Your task to perform on an android device: Go to Google Image 0: 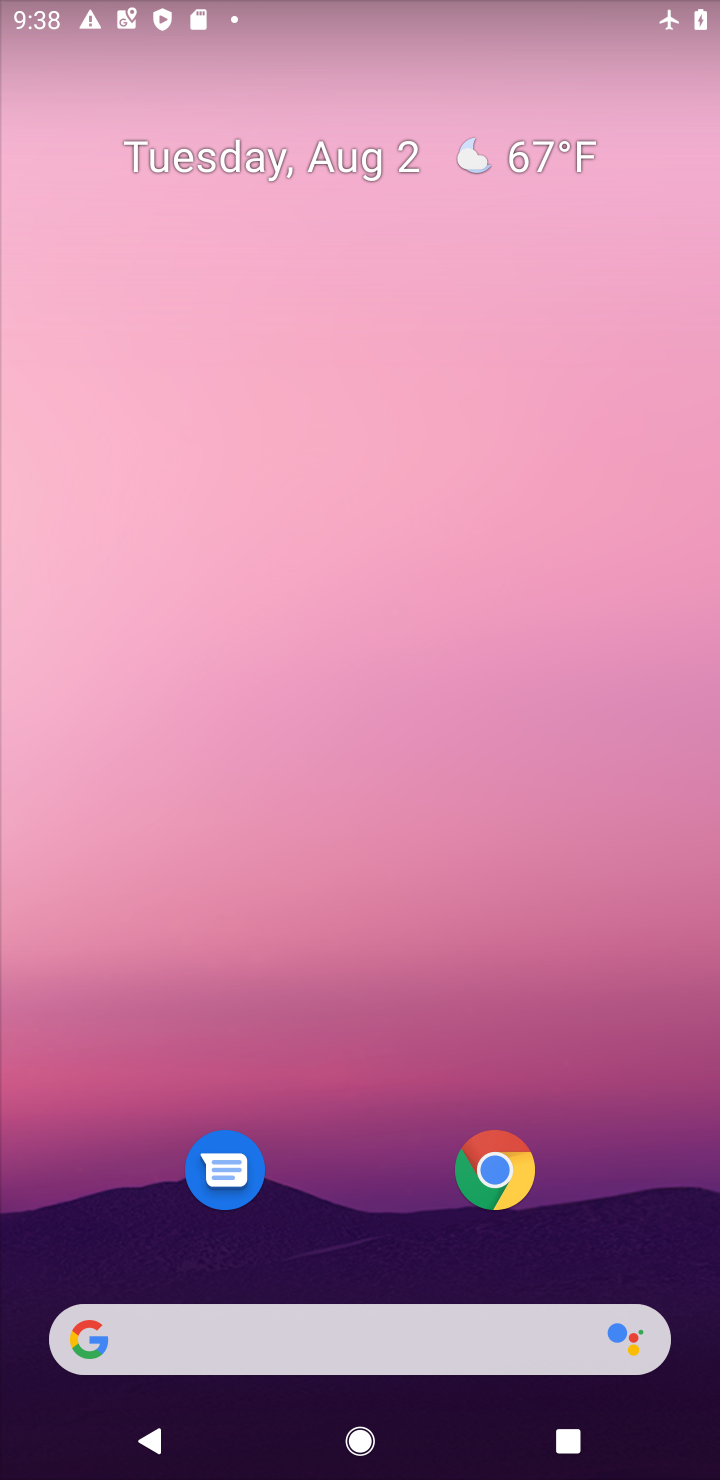
Step 0: click (170, 1338)
Your task to perform on an android device: Go to Google Image 1: 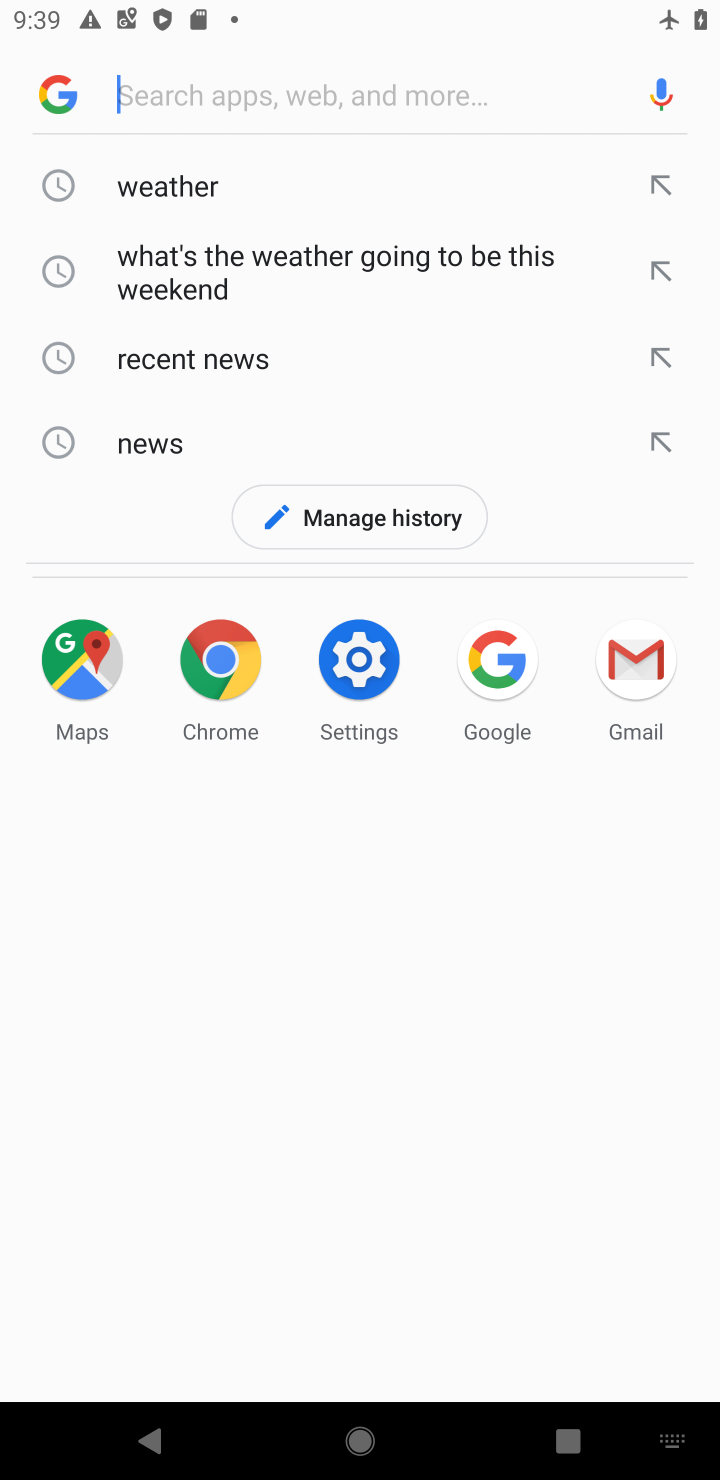
Step 1: task complete